Your task to perform on an android device: Search for Italian restaurants on Maps Image 0: 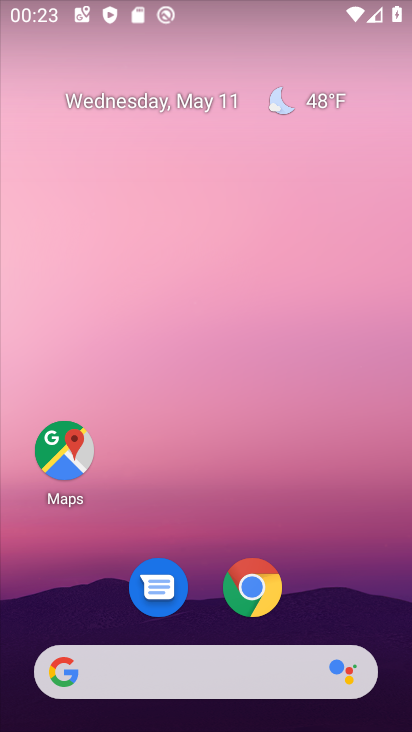
Step 0: click (59, 467)
Your task to perform on an android device: Search for Italian restaurants on Maps Image 1: 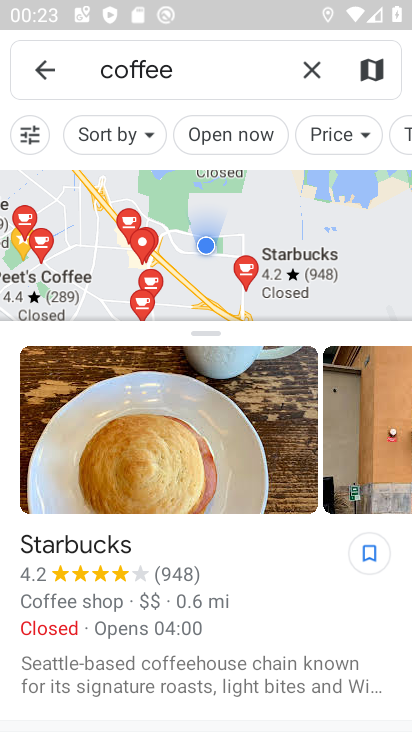
Step 1: click (295, 67)
Your task to perform on an android device: Search for Italian restaurants on Maps Image 2: 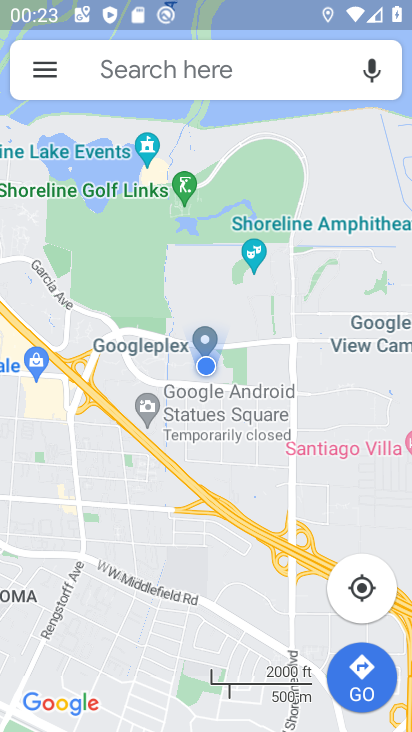
Step 2: click (259, 66)
Your task to perform on an android device: Search for Italian restaurants on Maps Image 3: 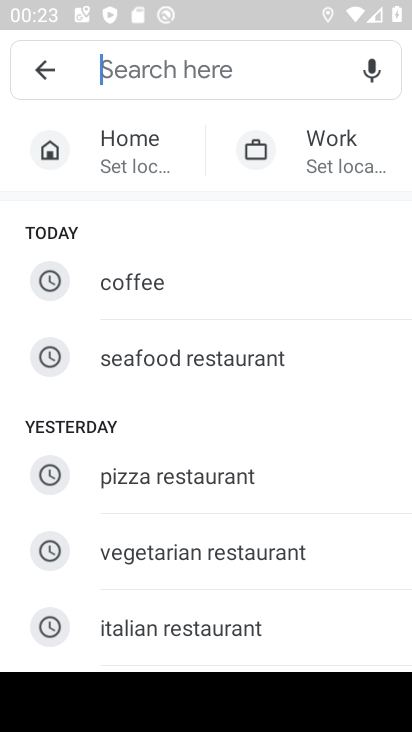
Step 3: click (234, 616)
Your task to perform on an android device: Search for Italian restaurants on Maps Image 4: 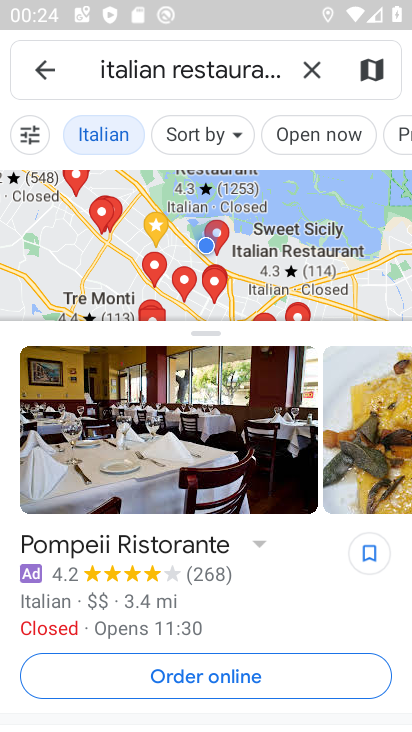
Step 4: task complete